Your task to perform on an android device: find which apps use the phone's location Image 0: 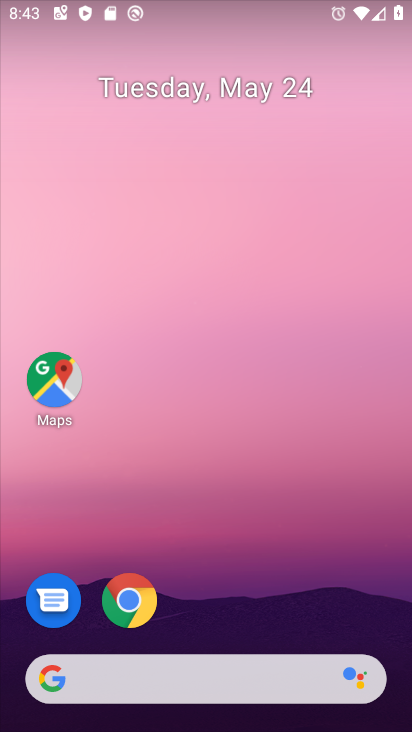
Step 0: drag from (214, 727) to (218, 180)
Your task to perform on an android device: find which apps use the phone's location Image 1: 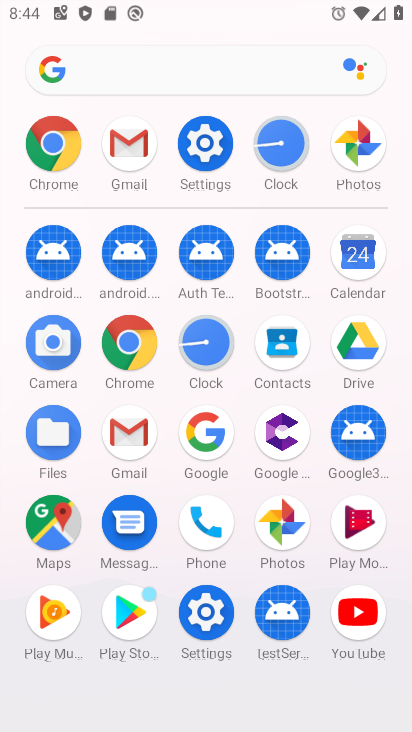
Step 1: click (207, 147)
Your task to perform on an android device: find which apps use the phone's location Image 2: 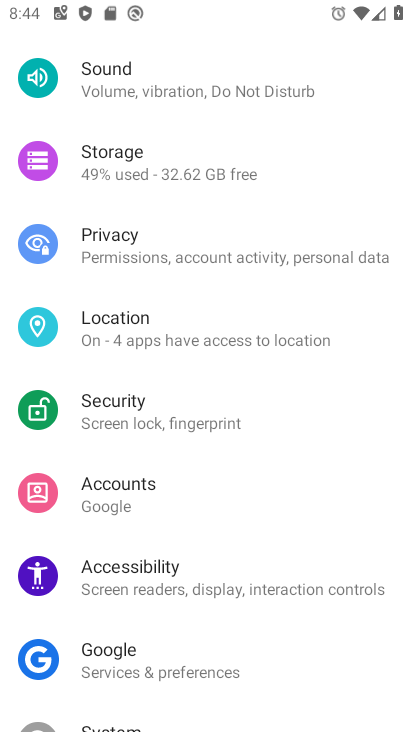
Step 2: click (117, 327)
Your task to perform on an android device: find which apps use the phone's location Image 3: 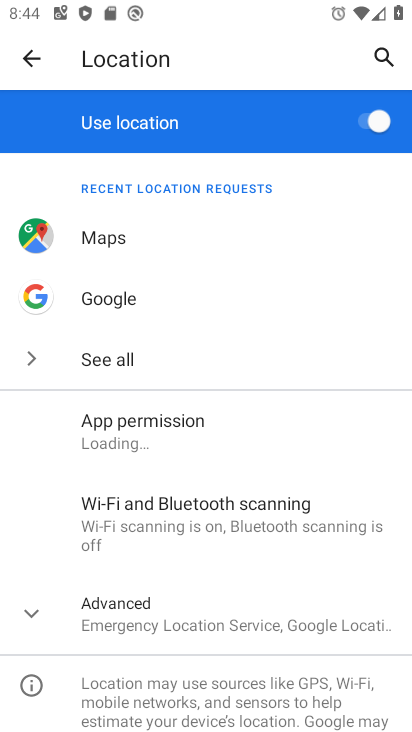
Step 3: click (127, 428)
Your task to perform on an android device: find which apps use the phone's location Image 4: 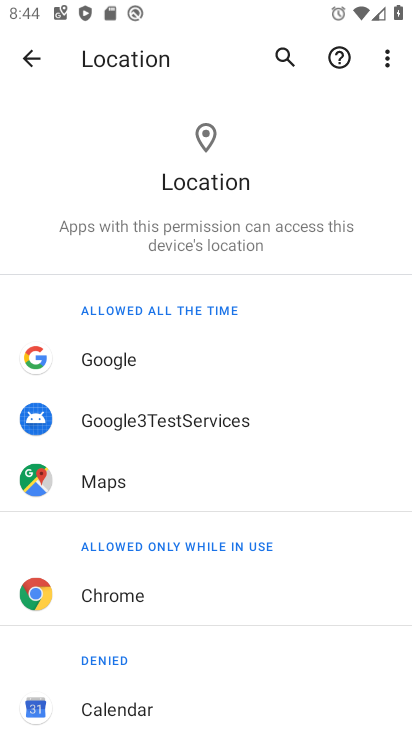
Step 4: task complete